Your task to perform on an android device: Check the news Image 0: 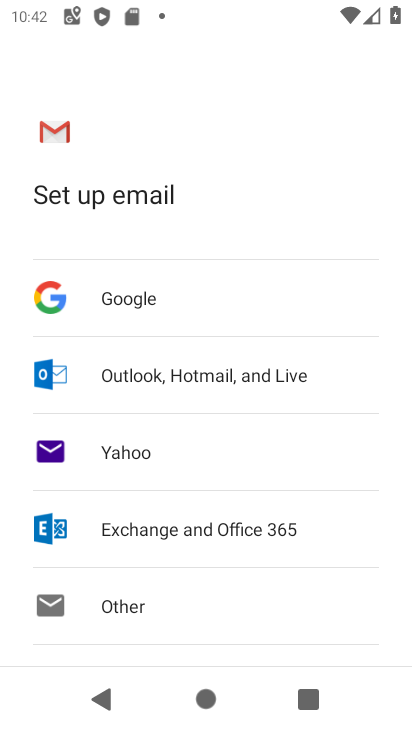
Step 0: press home button
Your task to perform on an android device: Check the news Image 1: 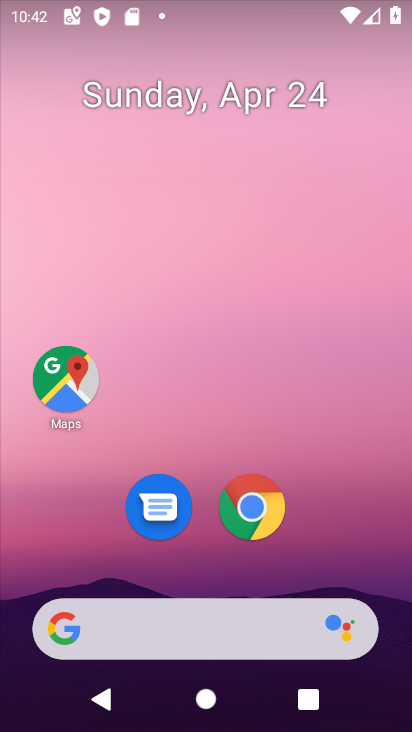
Step 1: task complete